Your task to perform on an android device: Is it going to rain tomorrow? Image 0: 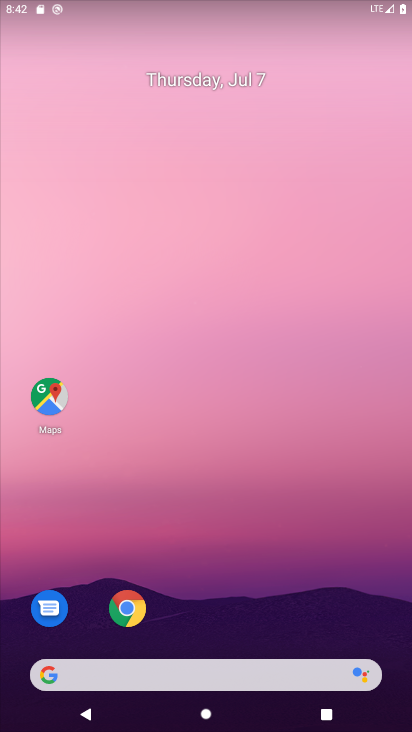
Step 0: click (236, 670)
Your task to perform on an android device: Is it going to rain tomorrow? Image 1: 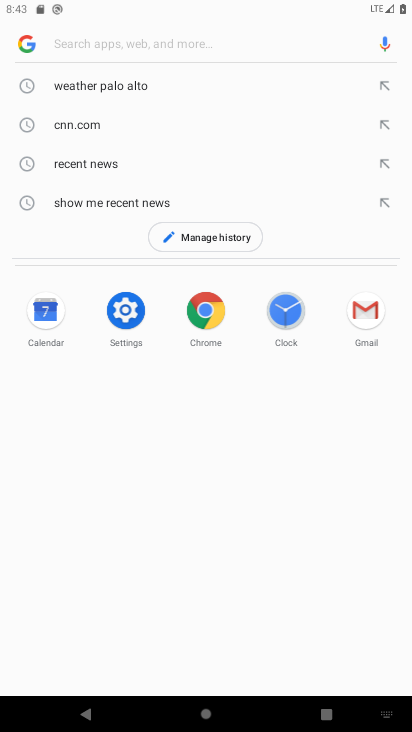
Step 1: type "weather"
Your task to perform on an android device: Is it going to rain tomorrow? Image 2: 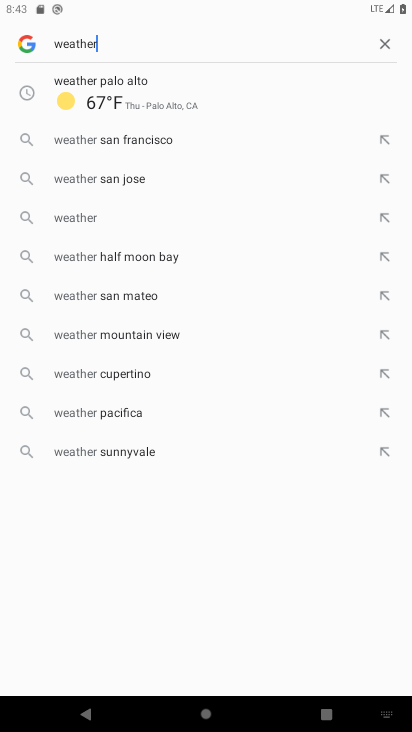
Step 2: click (210, 94)
Your task to perform on an android device: Is it going to rain tomorrow? Image 3: 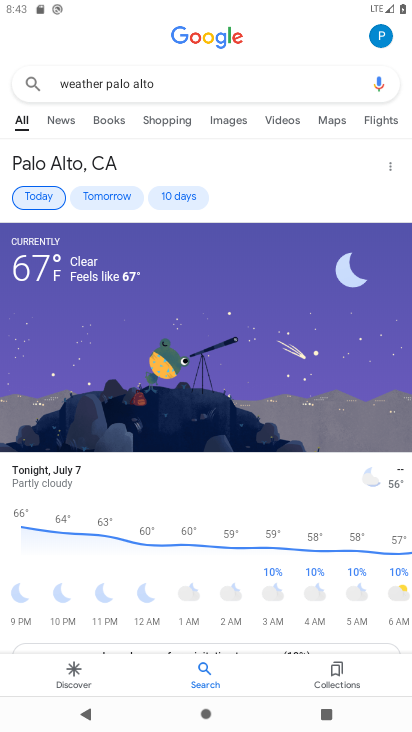
Step 3: click (115, 190)
Your task to perform on an android device: Is it going to rain tomorrow? Image 4: 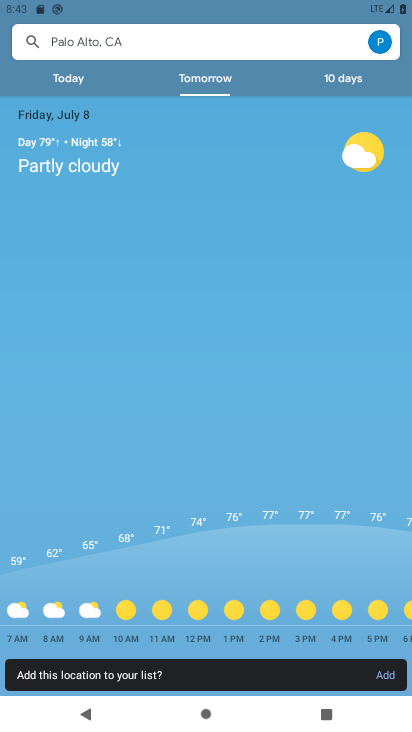
Step 4: task complete